Your task to perform on an android device: Clear the shopping cart on newegg. Add "macbook pro 13 inch" to the cart on newegg Image 0: 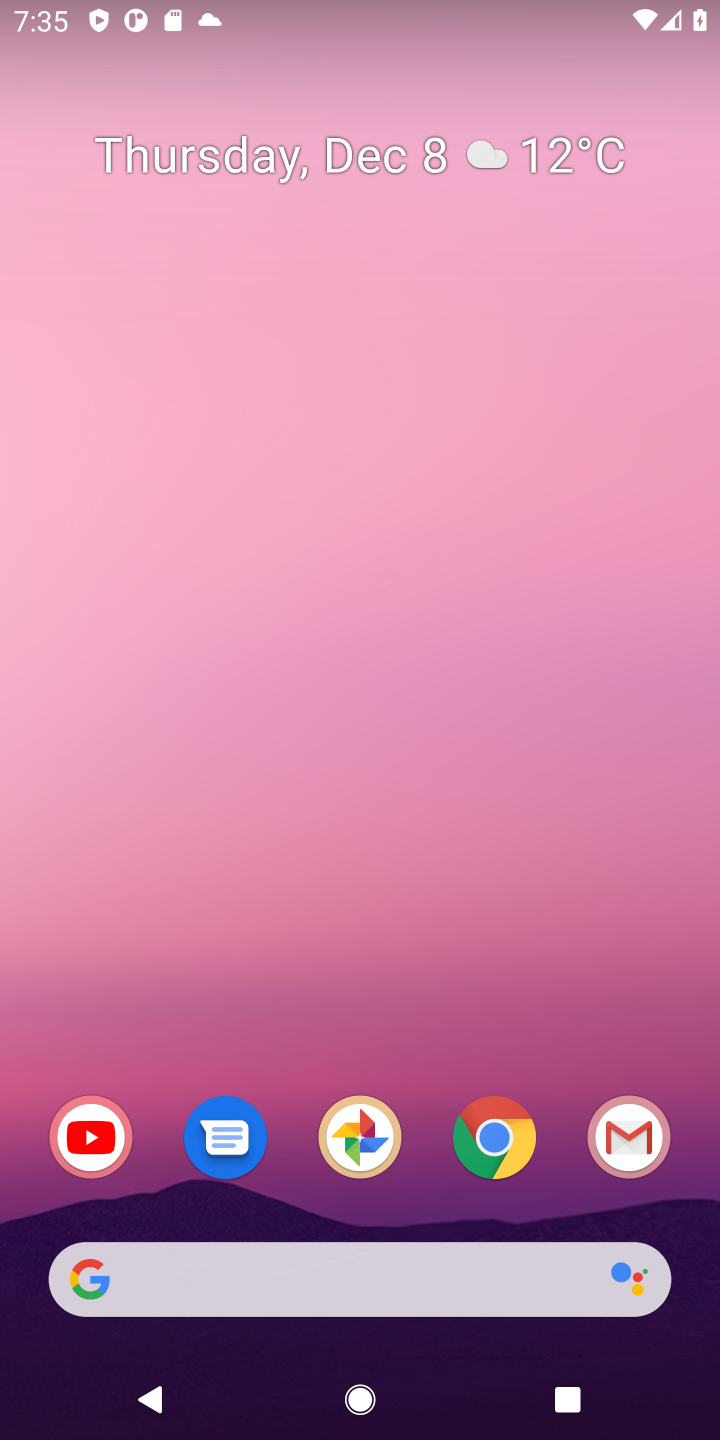
Step 0: click (505, 1112)
Your task to perform on an android device: Clear the shopping cart on newegg. Add "macbook pro 13 inch" to the cart on newegg Image 1: 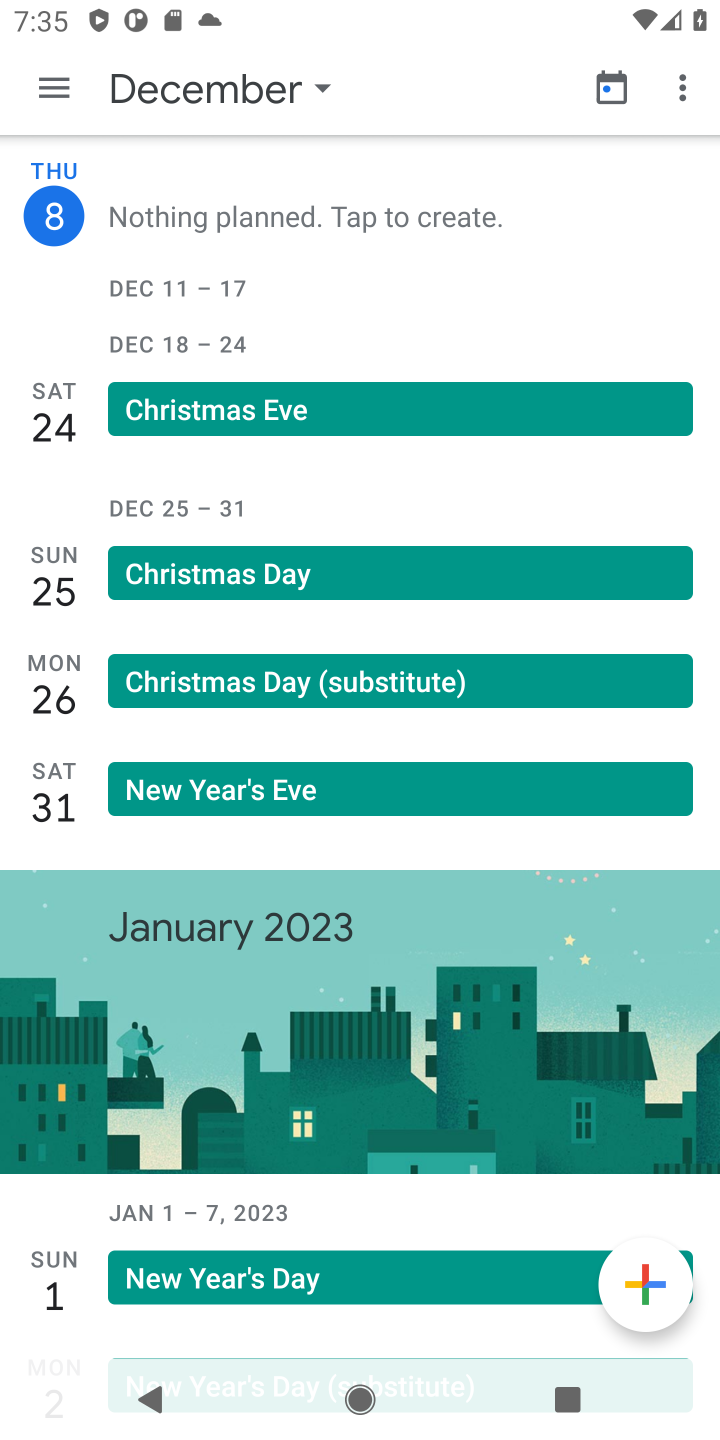
Step 1: press home button
Your task to perform on an android device: Clear the shopping cart on newegg. Add "macbook pro 13 inch" to the cart on newegg Image 2: 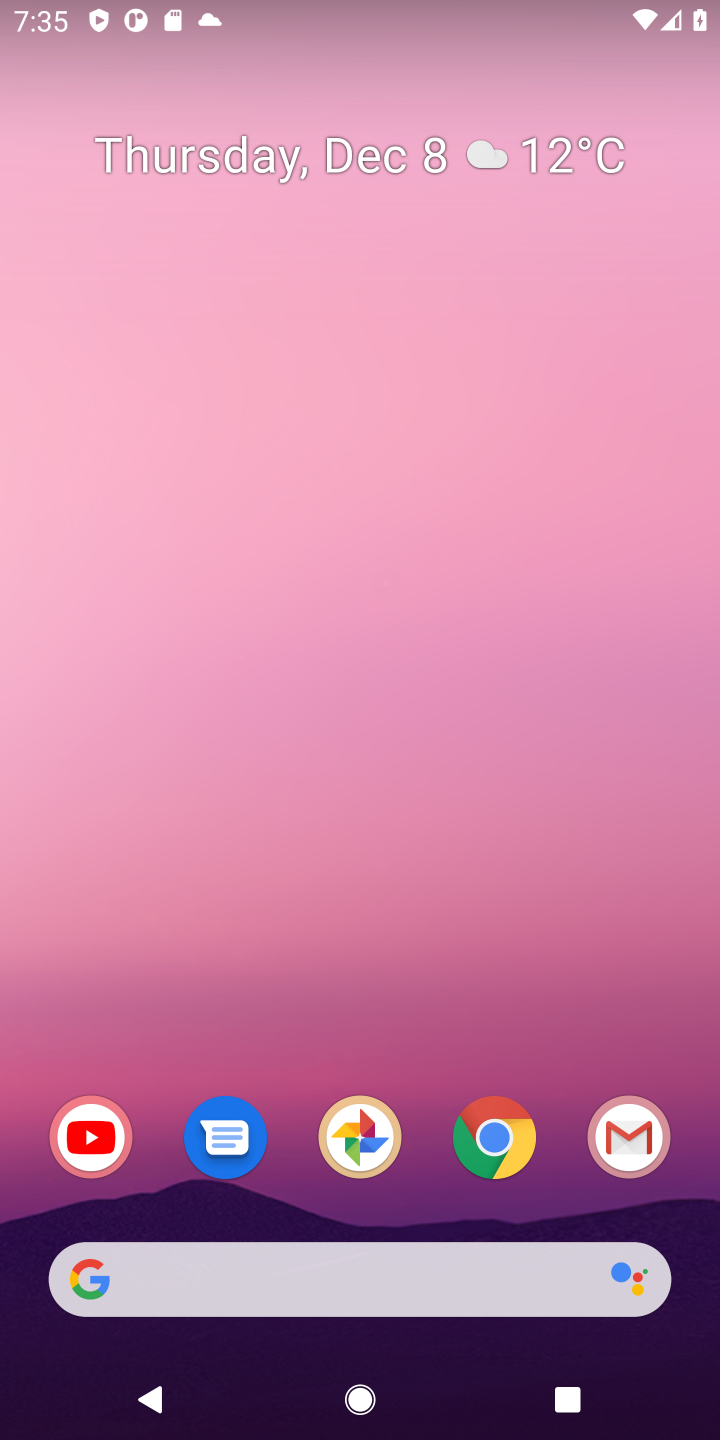
Step 2: click (474, 1137)
Your task to perform on an android device: Clear the shopping cart on newegg. Add "macbook pro 13 inch" to the cart on newegg Image 3: 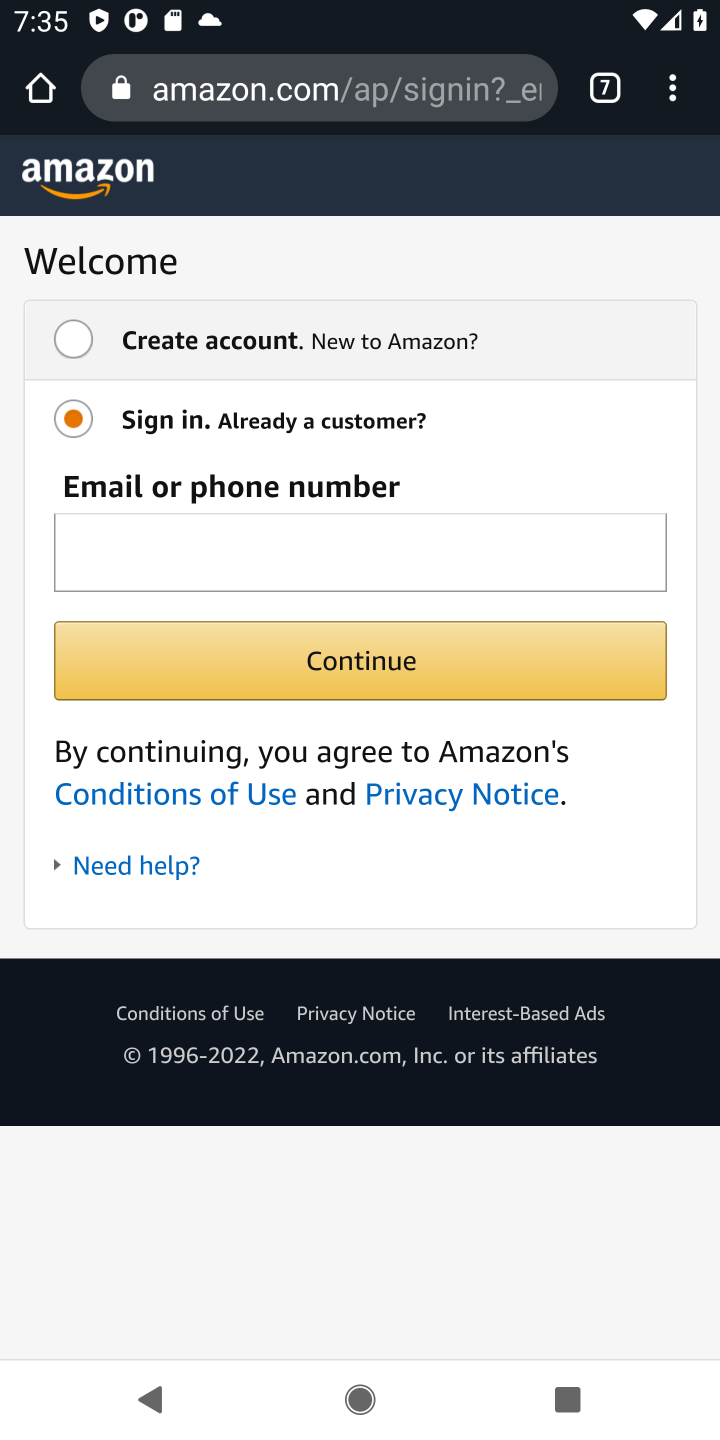
Step 3: click (586, 98)
Your task to perform on an android device: Clear the shopping cart on newegg. Add "macbook pro 13 inch" to the cart on newegg Image 4: 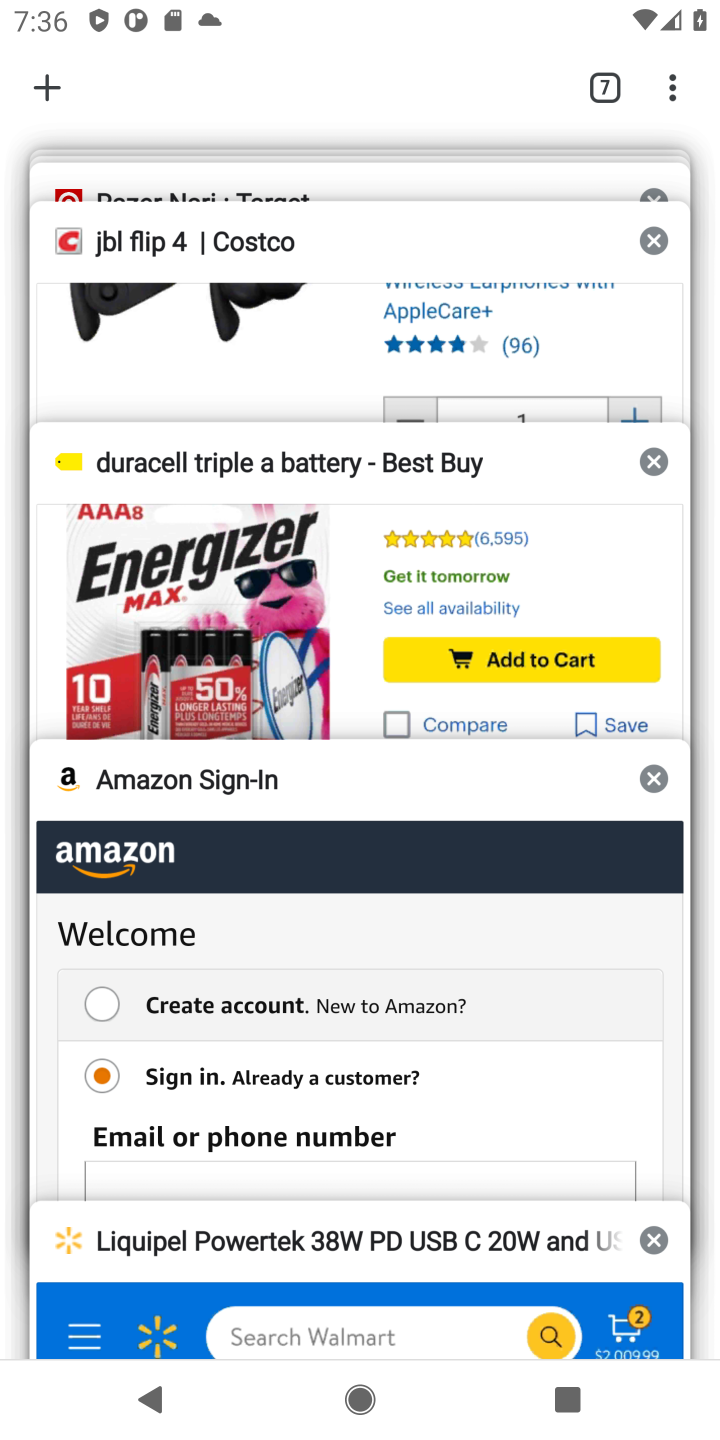
Step 4: drag from (337, 247) to (294, 636)
Your task to perform on an android device: Clear the shopping cart on newegg. Add "macbook pro 13 inch" to the cart on newegg Image 5: 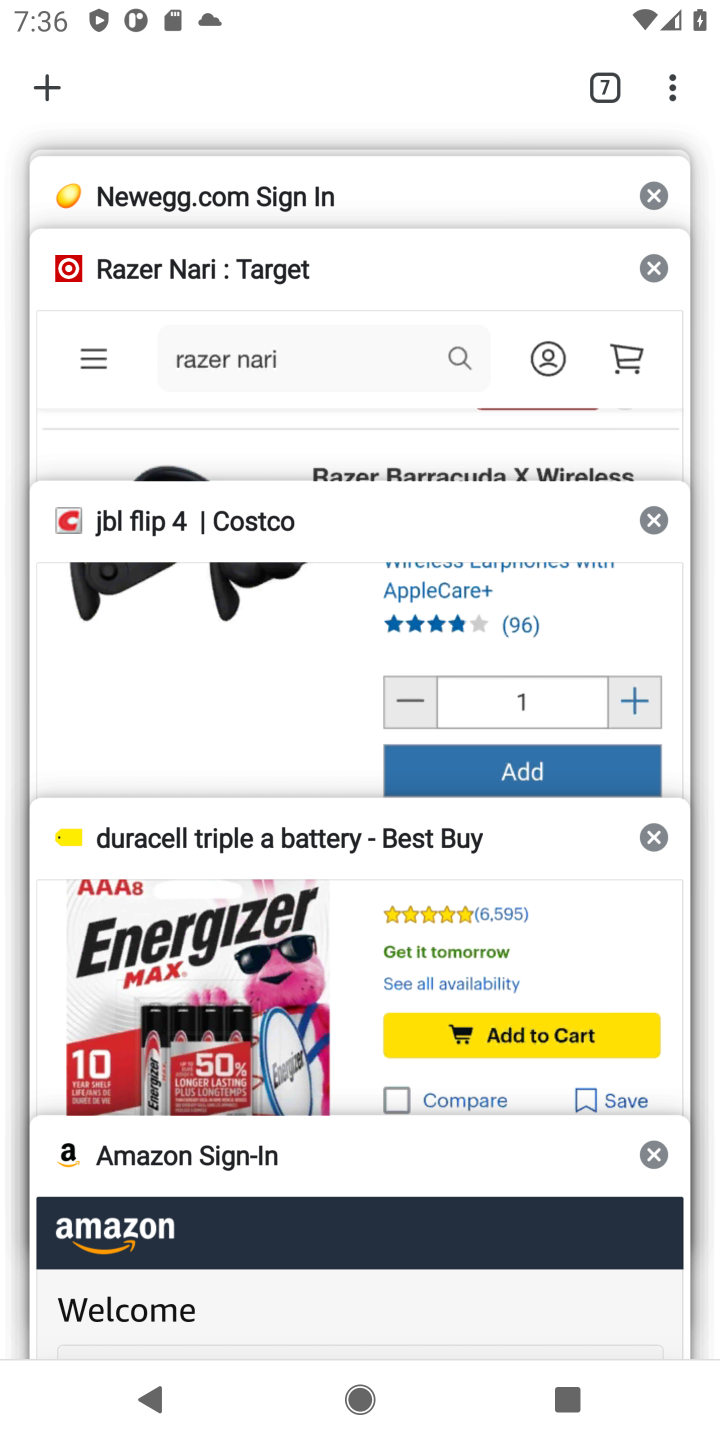
Step 5: drag from (344, 196) to (327, 422)
Your task to perform on an android device: Clear the shopping cart on newegg. Add "macbook pro 13 inch" to the cart on newegg Image 6: 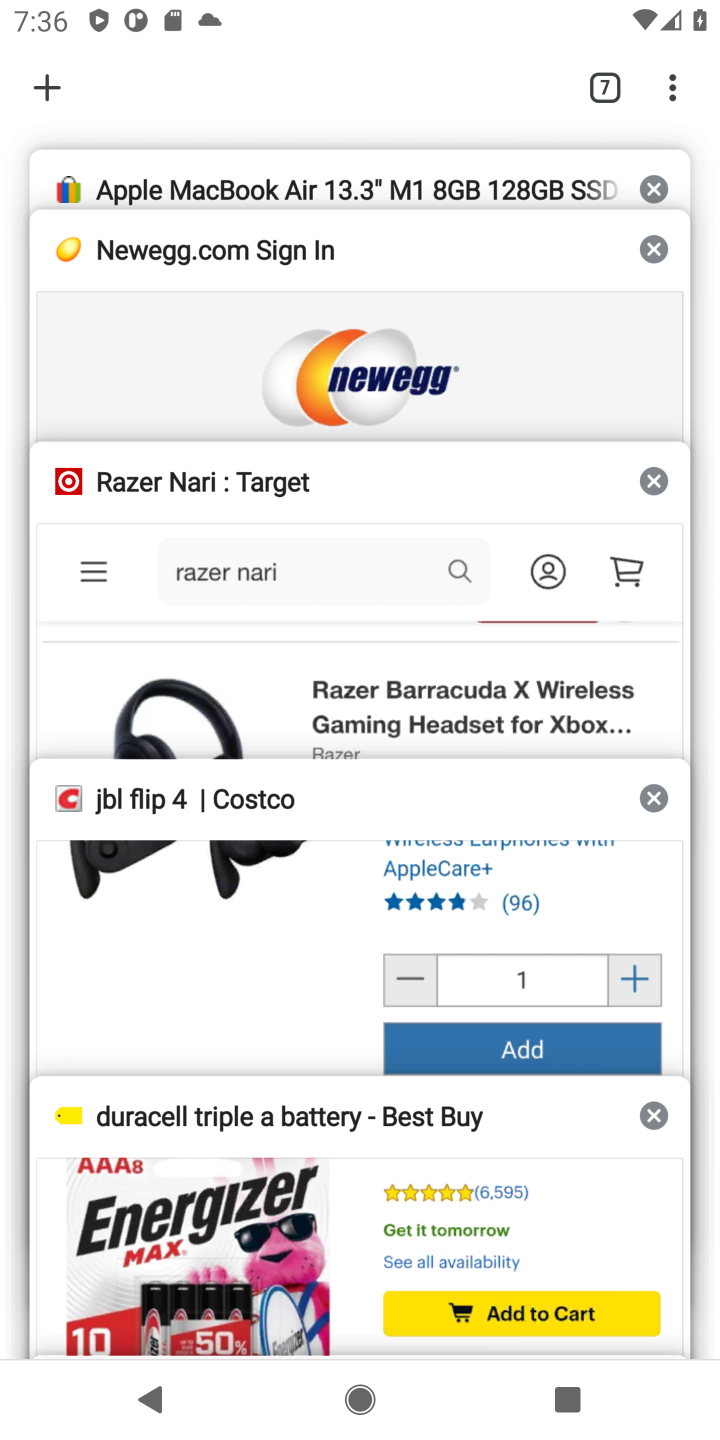
Step 6: click (371, 344)
Your task to perform on an android device: Clear the shopping cart on newegg. Add "macbook pro 13 inch" to the cart on newegg Image 7: 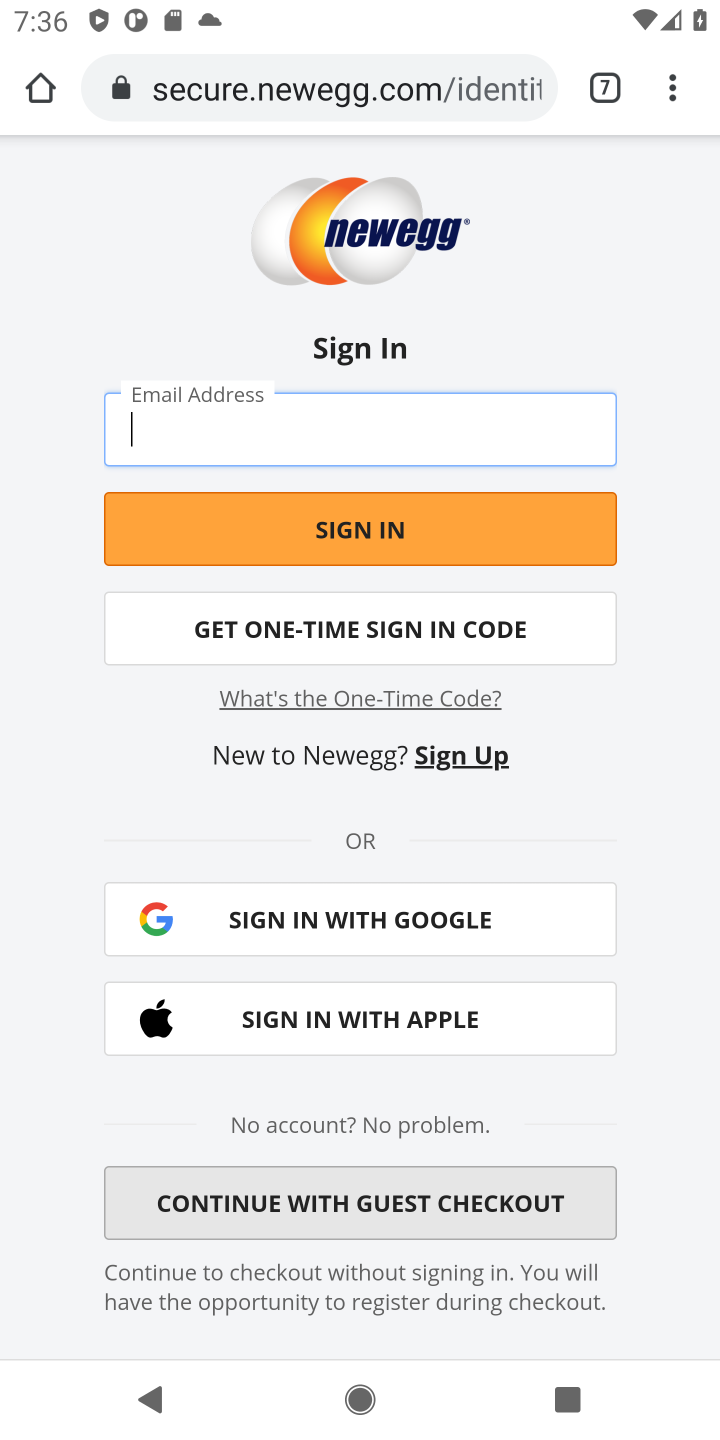
Step 7: press back button
Your task to perform on an android device: Clear the shopping cart on newegg. Add "macbook pro 13 inch" to the cart on newegg Image 8: 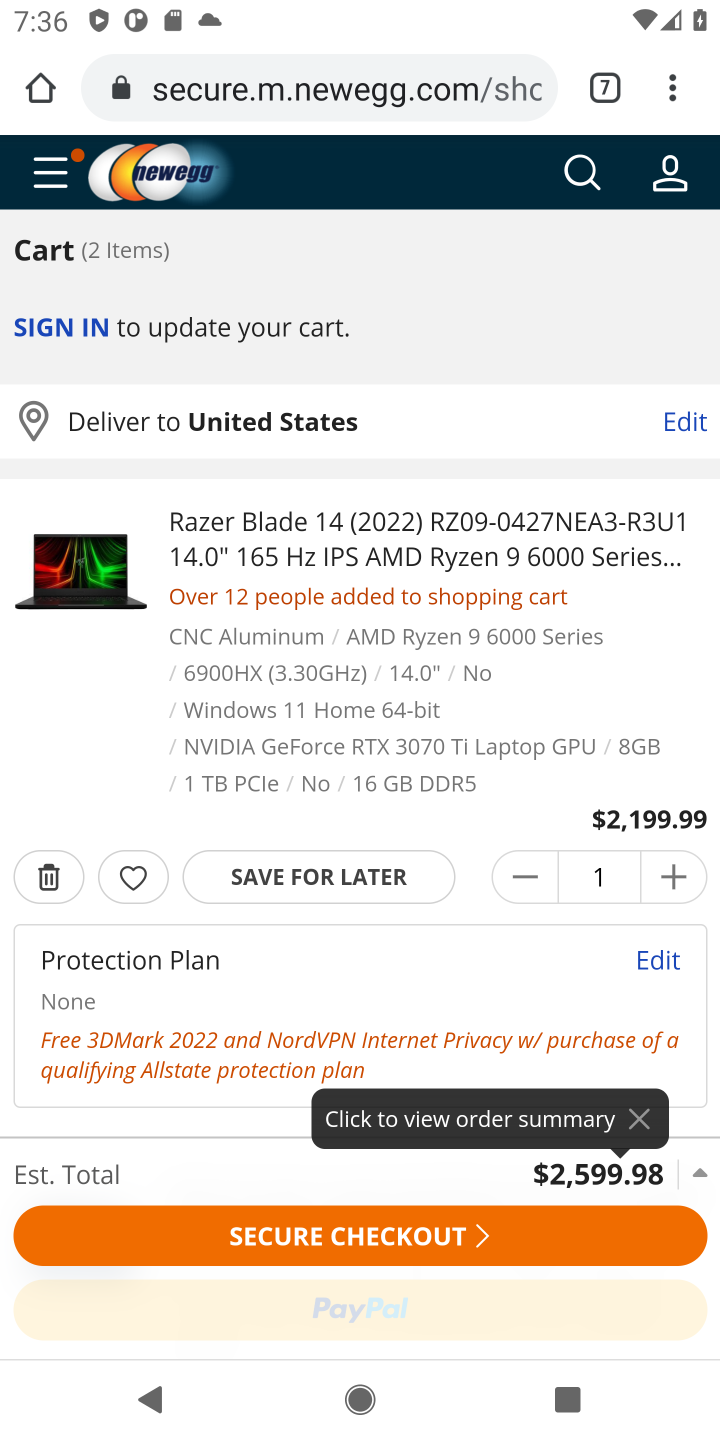
Step 8: click (36, 878)
Your task to perform on an android device: Clear the shopping cart on newegg. Add "macbook pro 13 inch" to the cart on newegg Image 9: 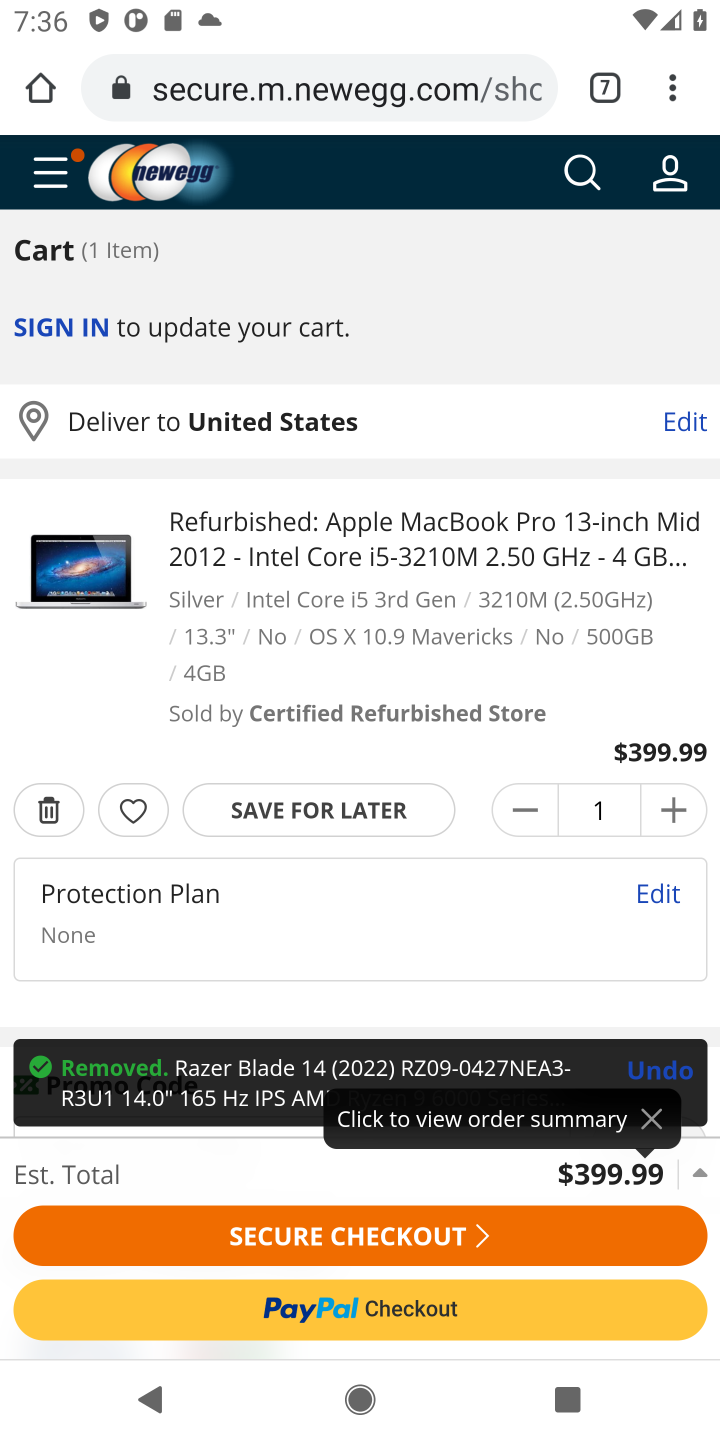
Step 9: click (44, 812)
Your task to perform on an android device: Clear the shopping cart on newegg. Add "macbook pro 13 inch" to the cart on newegg Image 10: 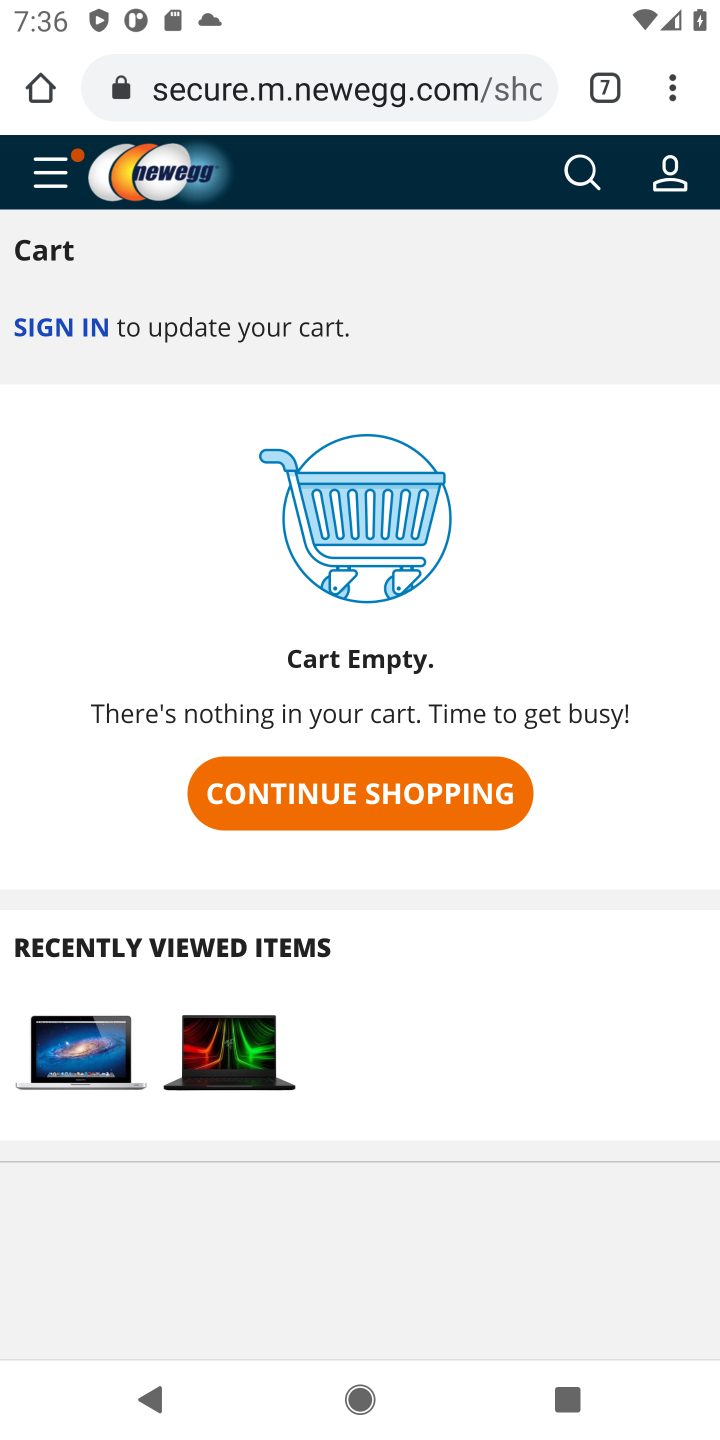
Step 10: click (590, 183)
Your task to perform on an android device: Clear the shopping cart on newegg. Add "macbook pro 13 inch" to the cart on newegg Image 11: 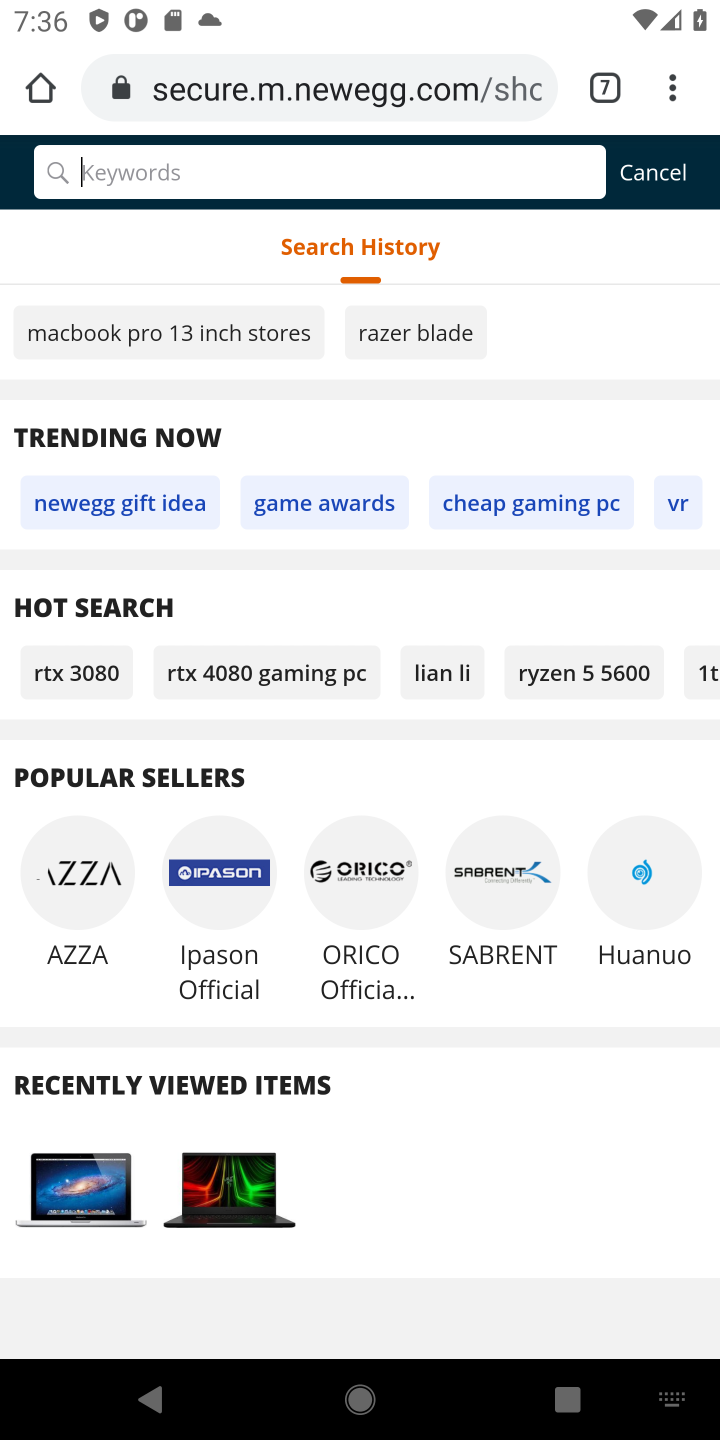
Step 11: type "macbook pro 13 inch"
Your task to perform on an android device: Clear the shopping cart on newegg. Add "macbook pro 13 inch" to the cart on newegg Image 12: 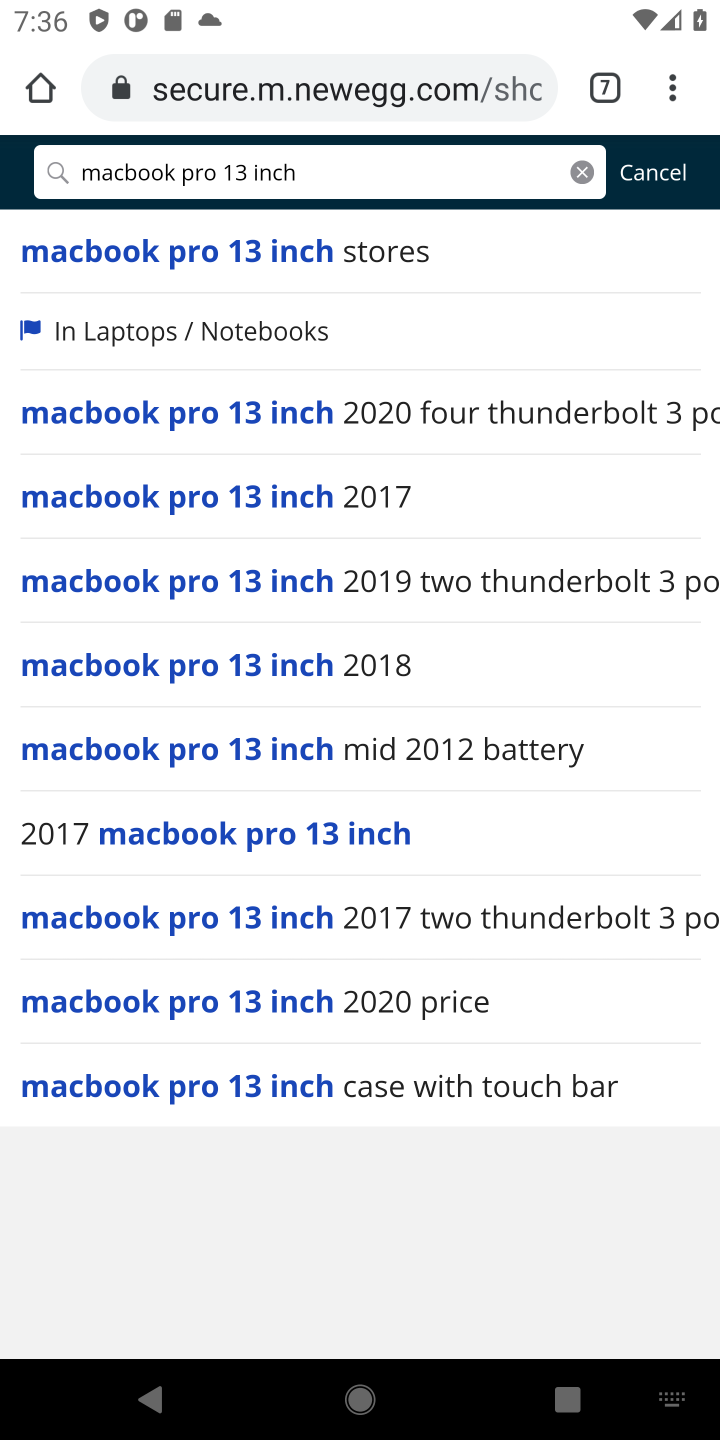
Step 12: click (286, 247)
Your task to perform on an android device: Clear the shopping cart on newegg. Add "macbook pro 13 inch" to the cart on newegg Image 13: 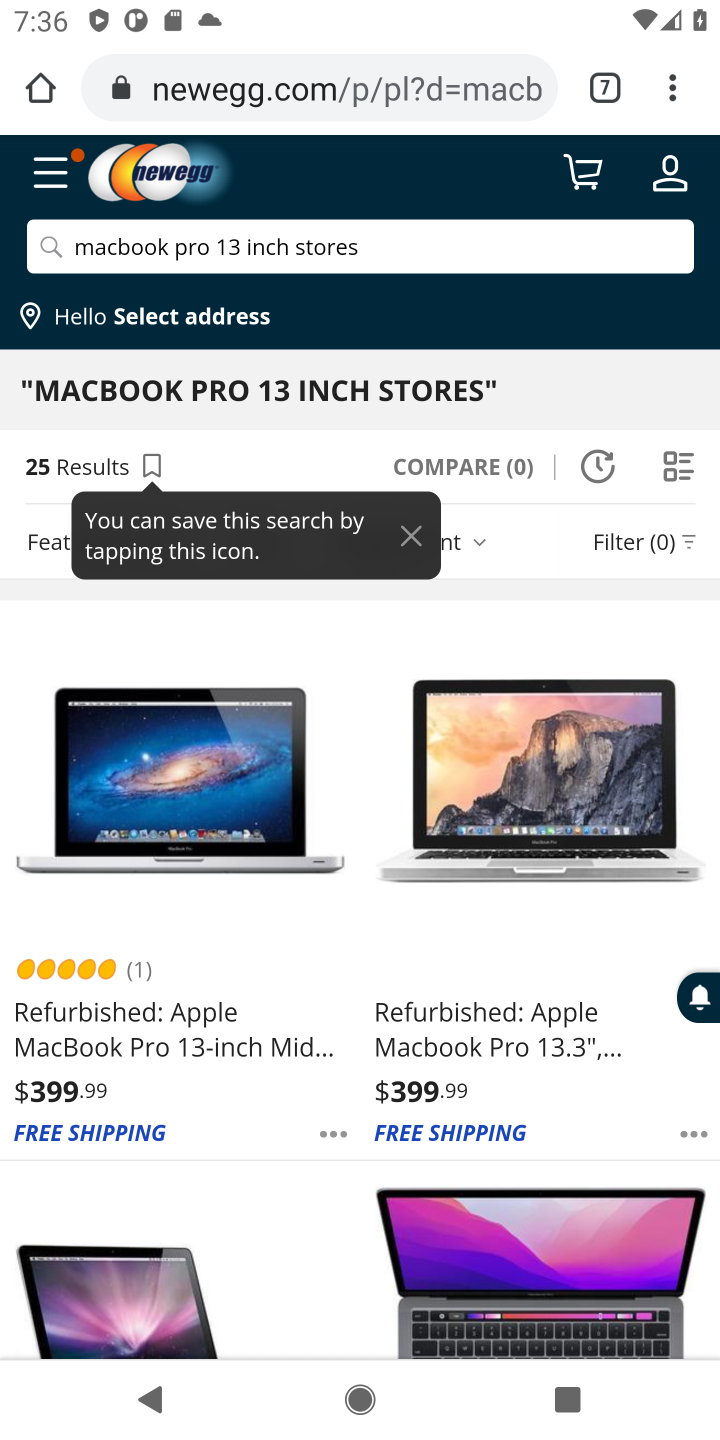
Step 13: click (92, 1019)
Your task to perform on an android device: Clear the shopping cart on newegg. Add "macbook pro 13 inch" to the cart on newegg Image 14: 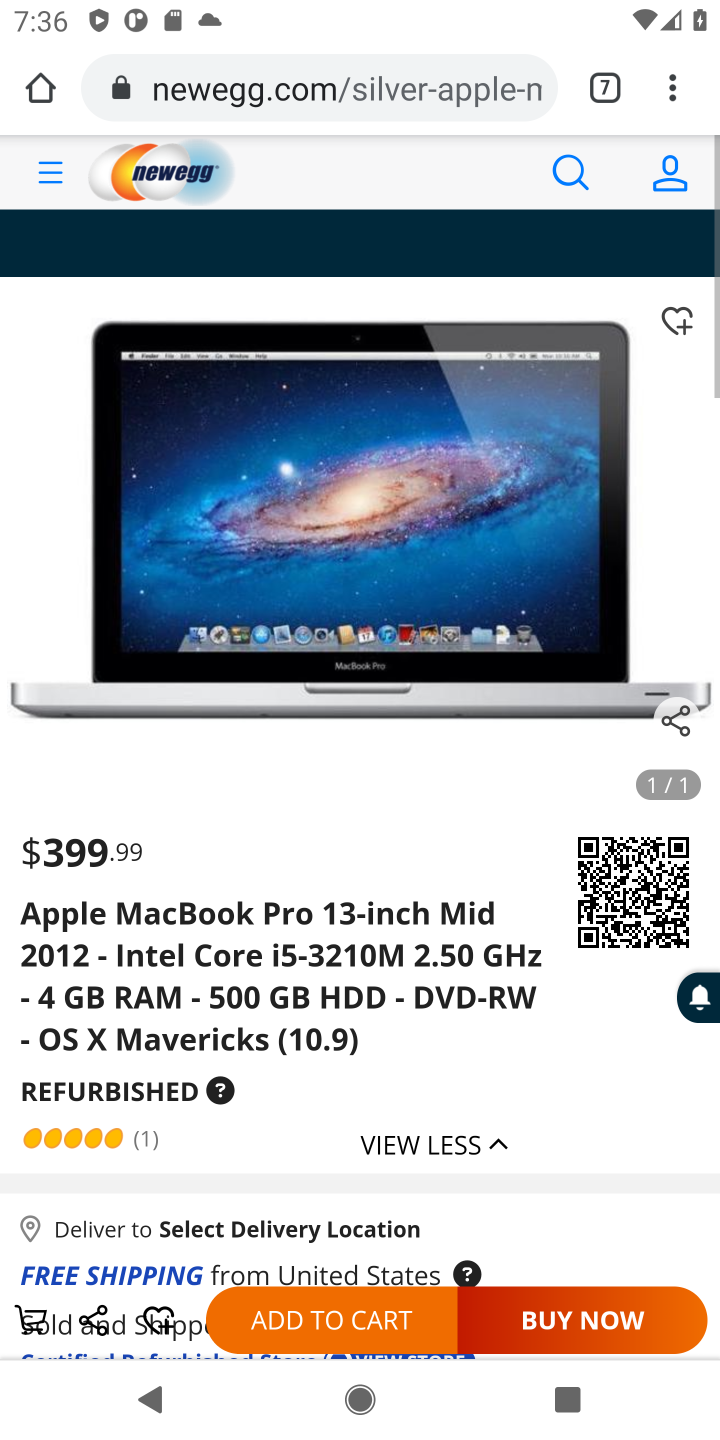
Step 14: click (328, 1311)
Your task to perform on an android device: Clear the shopping cart on newegg. Add "macbook pro 13 inch" to the cart on newegg Image 15: 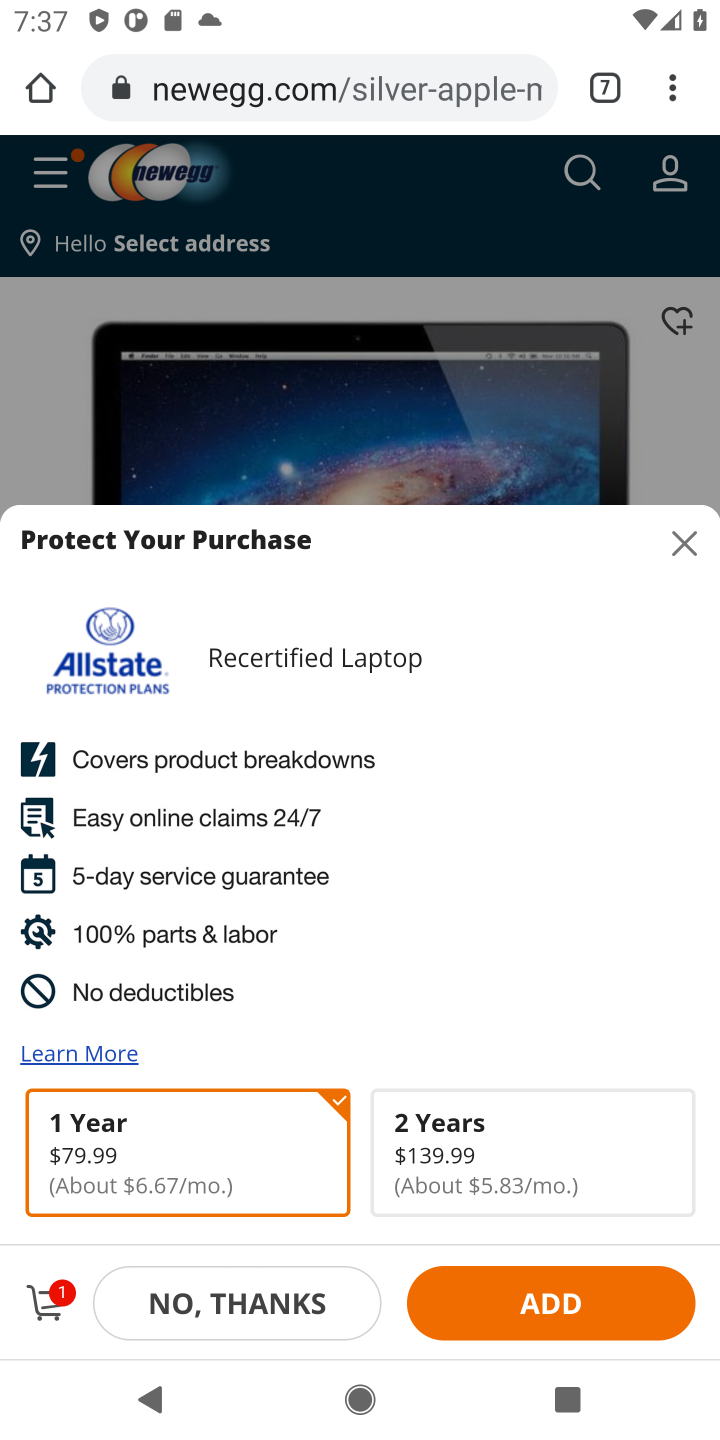
Step 15: task complete